Your task to perform on an android device: Open settings on Google Maps Image 0: 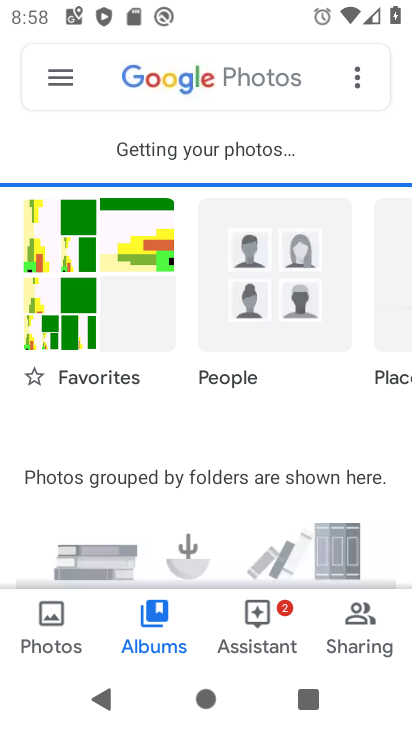
Step 0: drag from (218, 571) to (371, 504)
Your task to perform on an android device: Open settings on Google Maps Image 1: 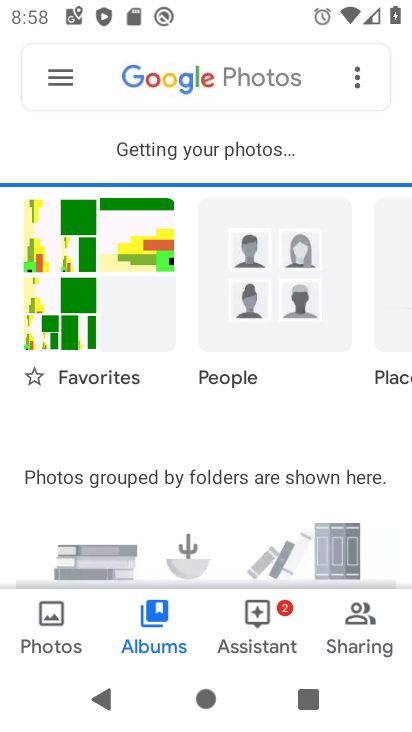
Step 1: press home button
Your task to perform on an android device: Open settings on Google Maps Image 2: 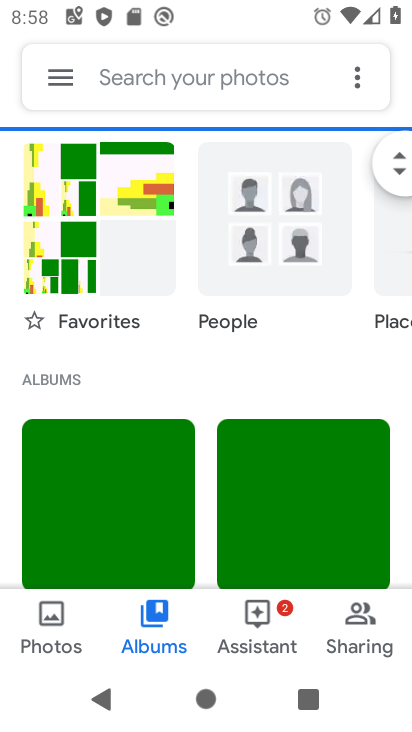
Step 2: drag from (371, 504) to (394, 553)
Your task to perform on an android device: Open settings on Google Maps Image 3: 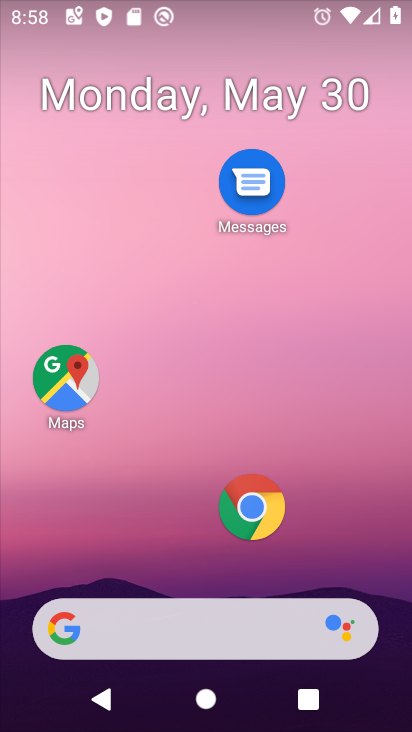
Step 3: drag from (216, 564) to (139, 55)
Your task to perform on an android device: Open settings on Google Maps Image 4: 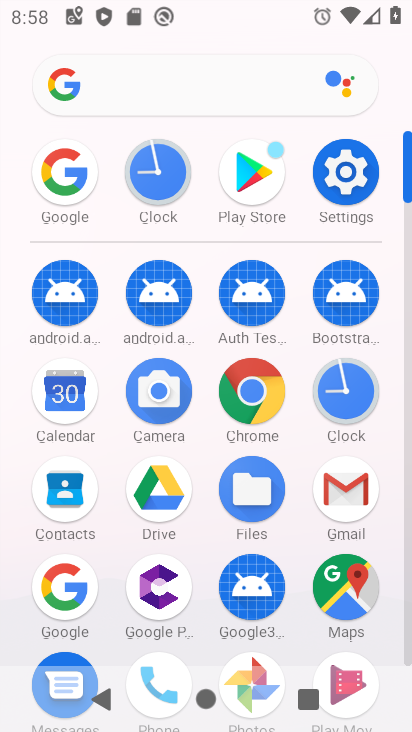
Step 4: click (346, 183)
Your task to perform on an android device: Open settings on Google Maps Image 5: 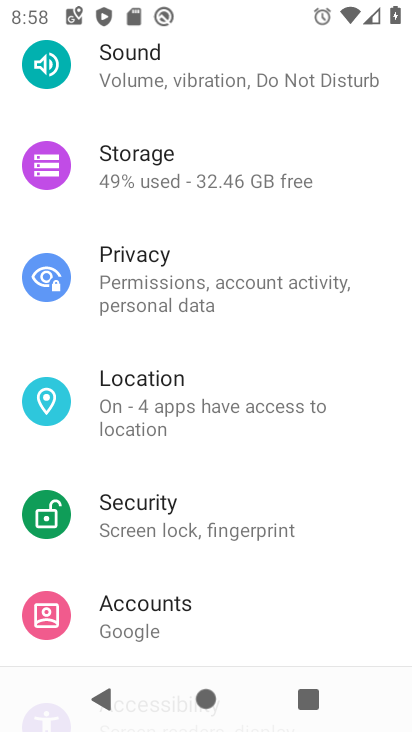
Step 5: press back button
Your task to perform on an android device: Open settings on Google Maps Image 6: 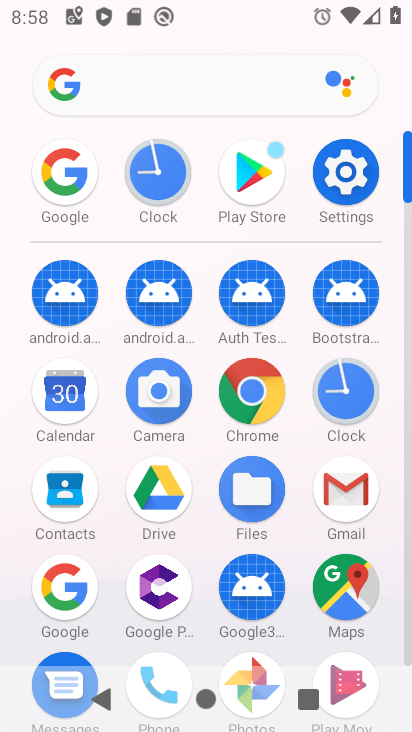
Step 6: click (333, 588)
Your task to perform on an android device: Open settings on Google Maps Image 7: 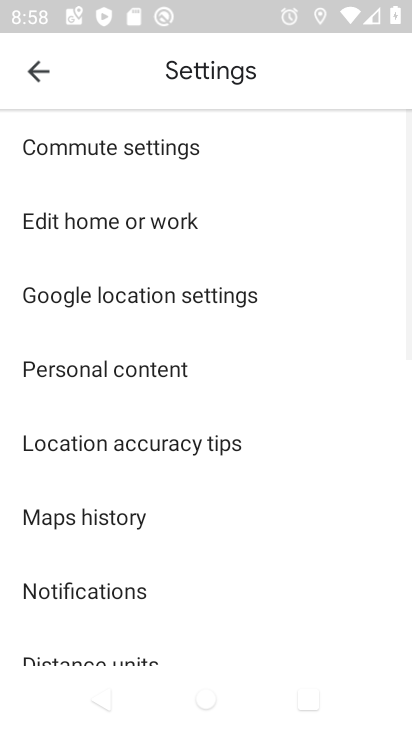
Step 7: click (27, 69)
Your task to perform on an android device: Open settings on Google Maps Image 8: 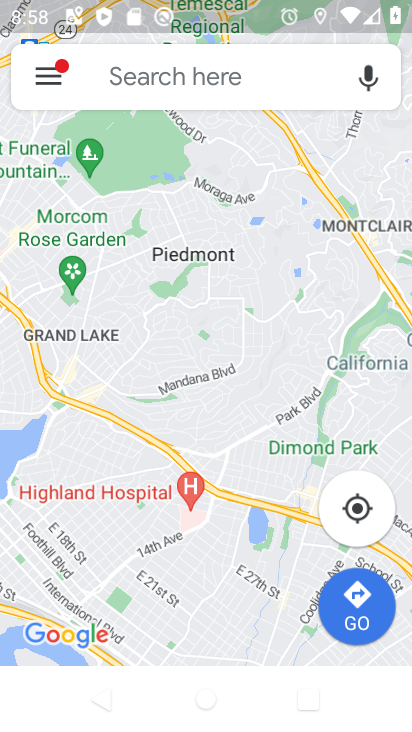
Step 8: click (46, 75)
Your task to perform on an android device: Open settings on Google Maps Image 9: 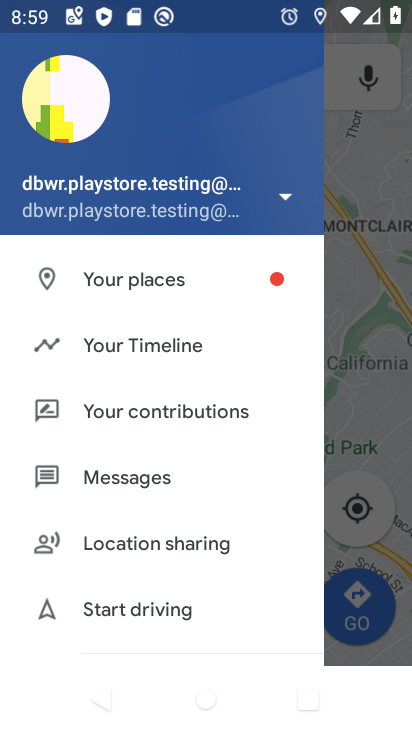
Step 9: drag from (118, 591) to (75, 213)
Your task to perform on an android device: Open settings on Google Maps Image 10: 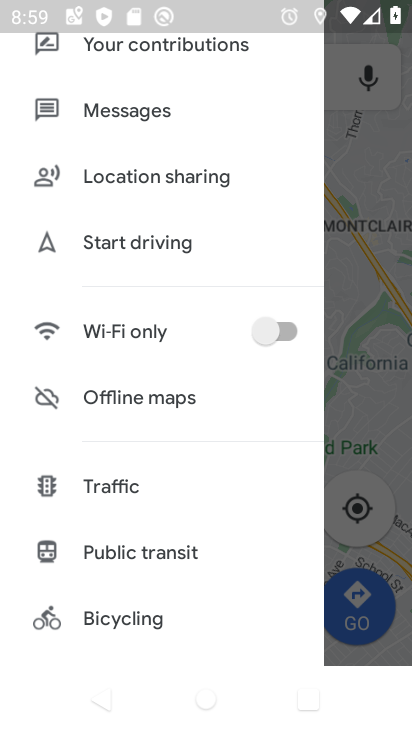
Step 10: drag from (164, 605) to (189, 201)
Your task to perform on an android device: Open settings on Google Maps Image 11: 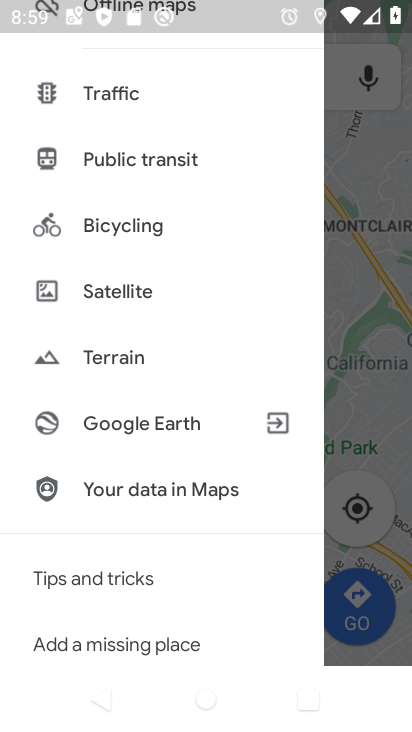
Step 11: drag from (143, 625) to (133, 270)
Your task to perform on an android device: Open settings on Google Maps Image 12: 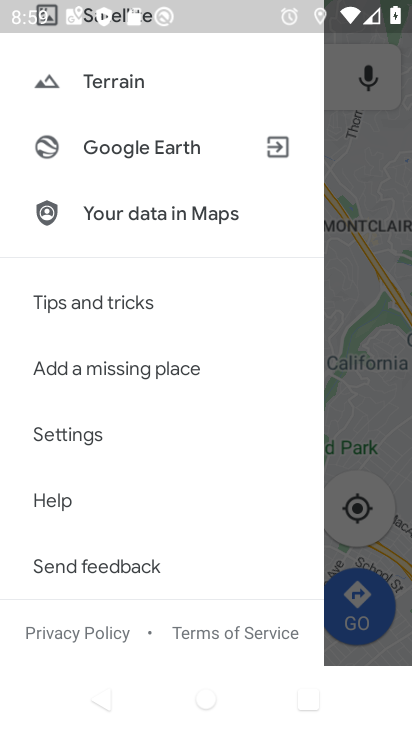
Step 12: click (98, 436)
Your task to perform on an android device: Open settings on Google Maps Image 13: 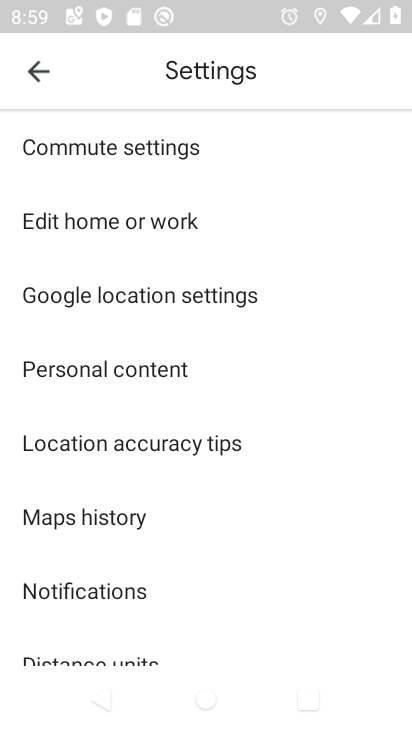
Step 13: task complete